Your task to perform on an android device: set the stopwatch Image 0: 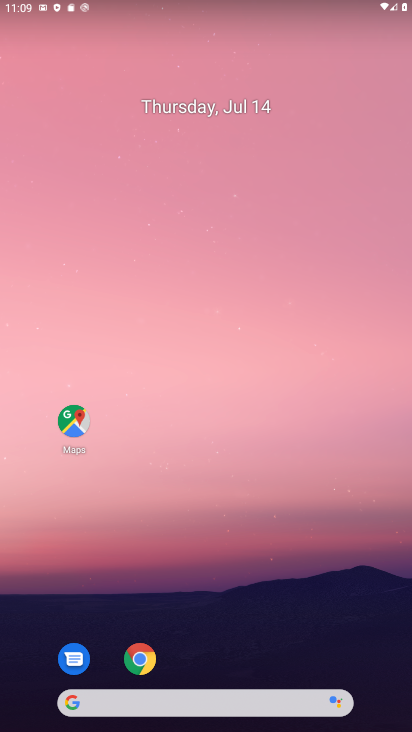
Step 0: drag from (203, 601) to (242, 144)
Your task to perform on an android device: set the stopwatch Image 1: 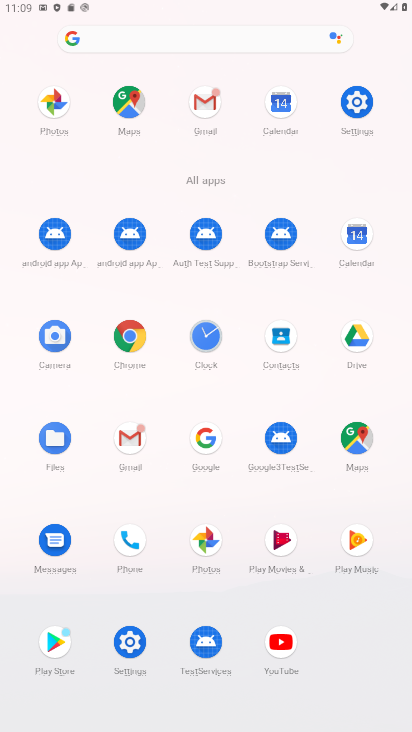
Step 1: click (209, 339)
Your task to perform on an android device: set the stopwatch Image 2: 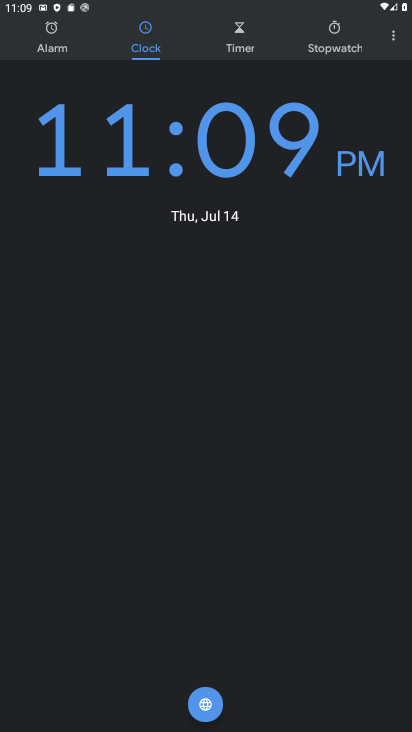
Step 2: click (328, 32)
Your task to perform on an android device: set the stopwatch Image 3: 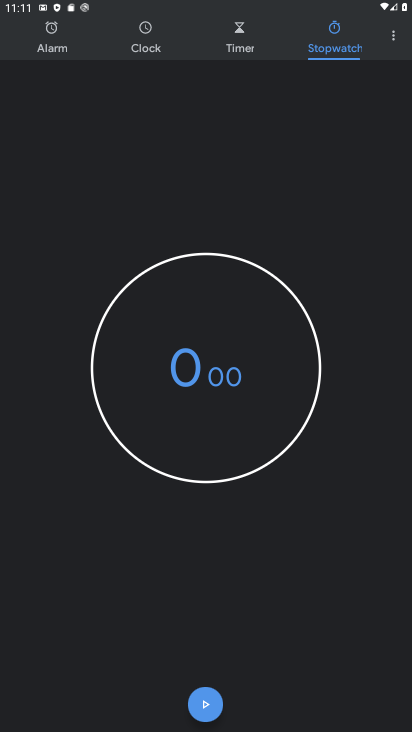
Step 3: task complete